Your task to perform on an android device: turn on bluetooth scan Image 0: 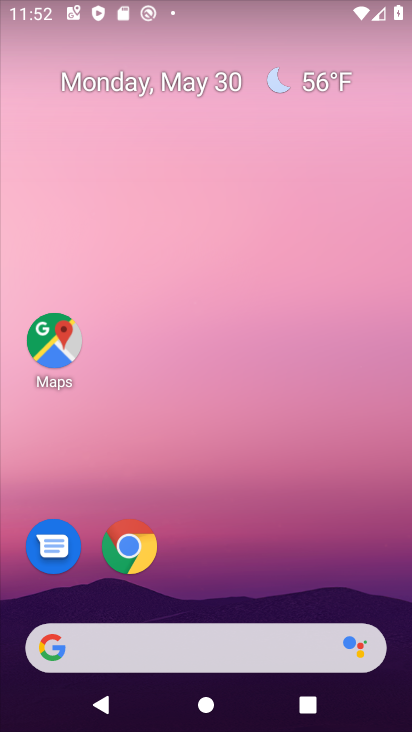
Step 0: drag from (318, 585) to (265, 131)
Your task to perform on an android device: turn on bluetooth scan Image 1: 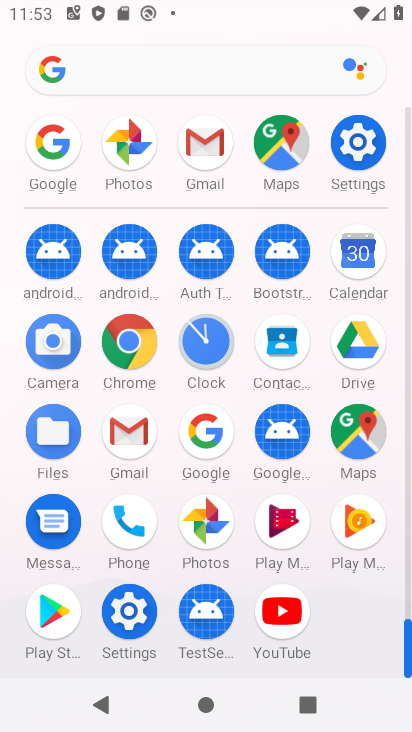
Step 1: click (361, 140)
Your task to perform on an android device: turn on bluetooth scan Image 2: 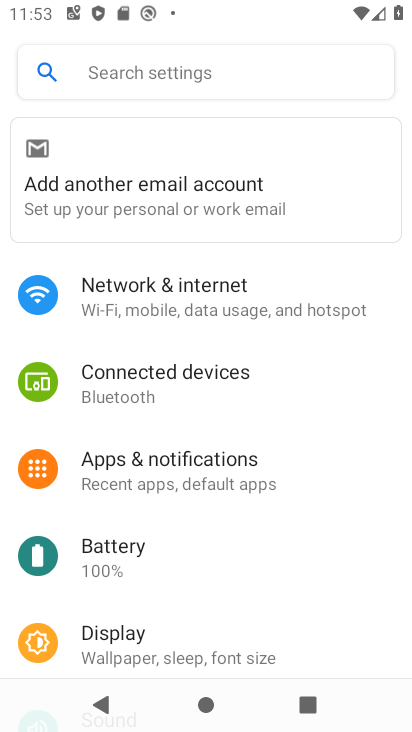
Step 2: drag from (170, 512) to (211, 408)
Your task to perform on an android device: turn on bluetooth scan Image 3: 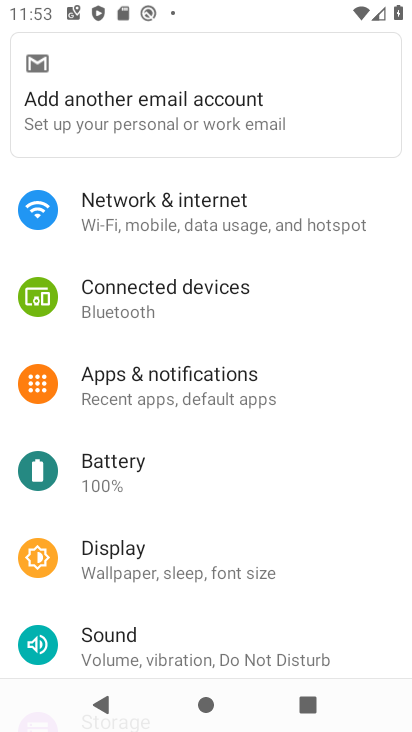
Step 3: drag from (222, 492) to (252, 394)
Your task to perform on an android device: turn on bluetooth scan Image 4: 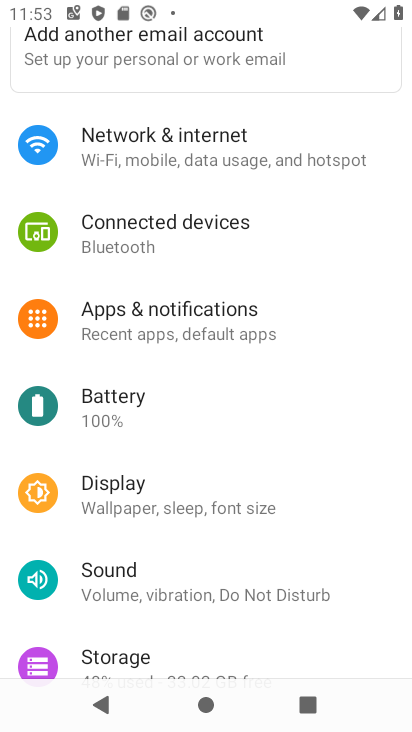
Step 4: drag from (193, 459) to (243, 348)
Your task to perform on an android device: turn on bluetooth scan Image 5: 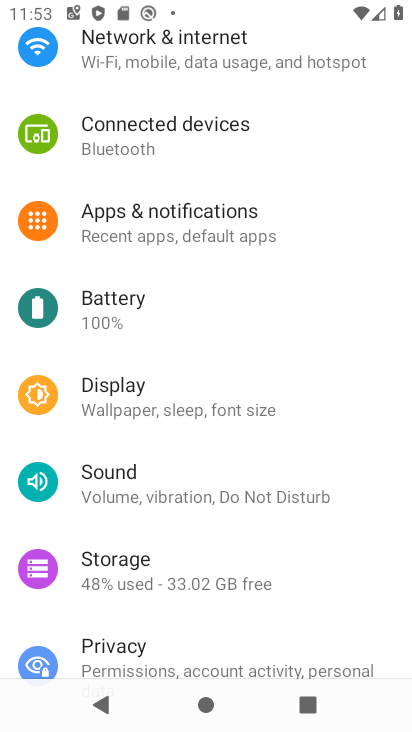
Step 5: drag from (191, 449) to (276, 342)
Your task to perform on an android device: turn on bluetooth scan Image 6: 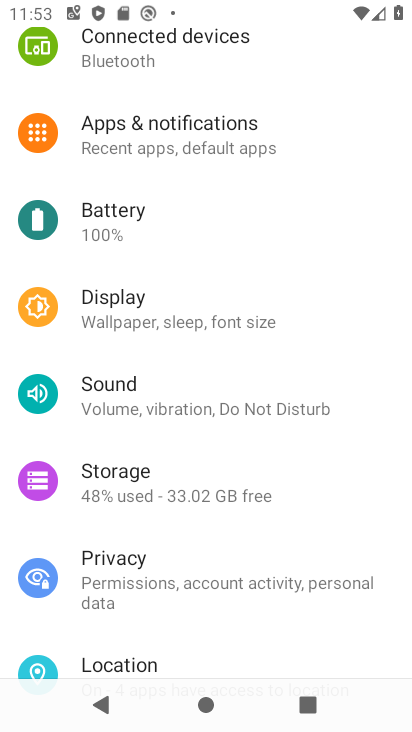
Step 6: drag from (177, 520) to (238, 433)
Your task to perform on an android device: turn on bluetooth scan Image 7: 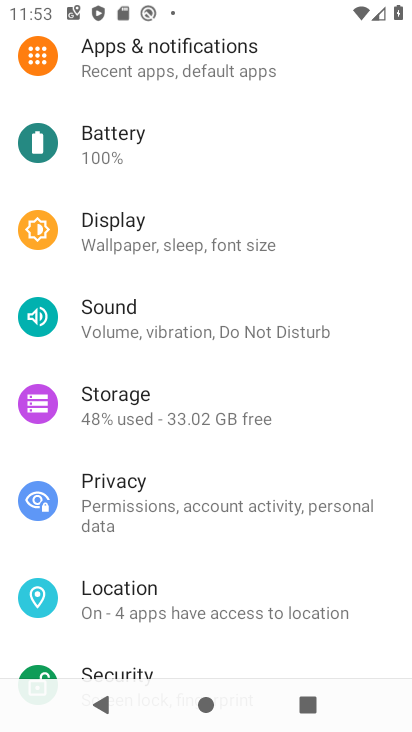
Step 7: drag from (187, 544) to (286, 421)
Your task to perform on an android device: turn on bluetooth scan Image 8: 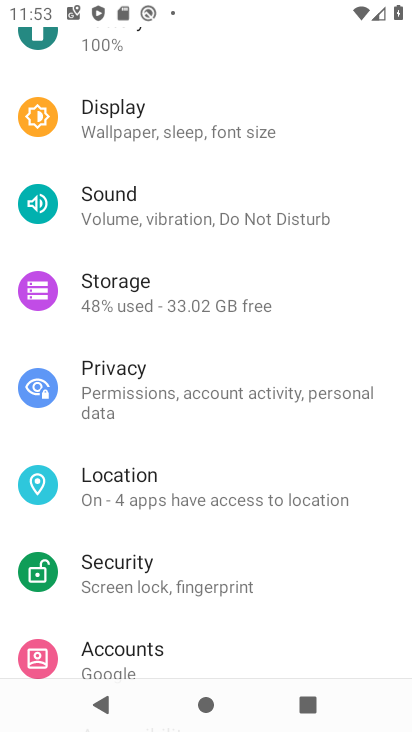
Step 8: click (203, 506)
Your task to perform on an android device: turn on bluetooth scan Image 9: 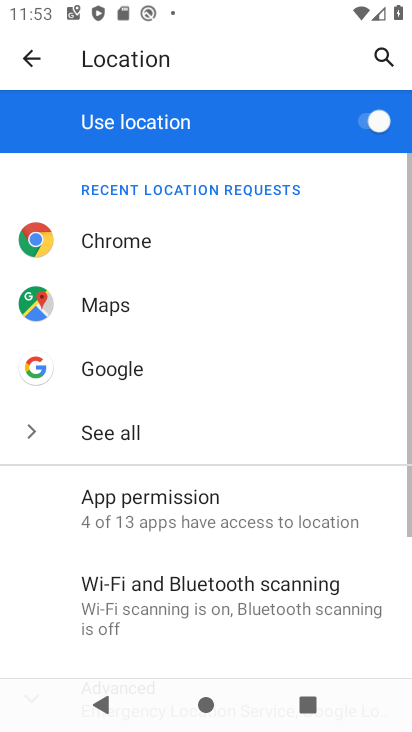
Step 9: click (227, 603)
Your task to perform on an android device: turn on bluetooth scan Image 10: 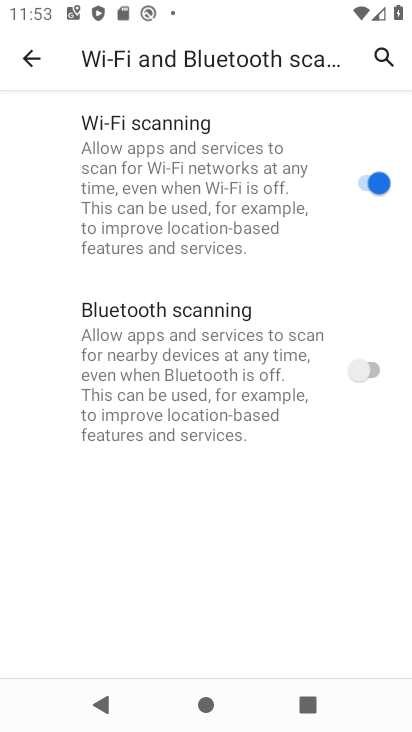
Step 10: click (377, 368)
Your task to perform on an android device: turn on bluetooth scan Image 11: 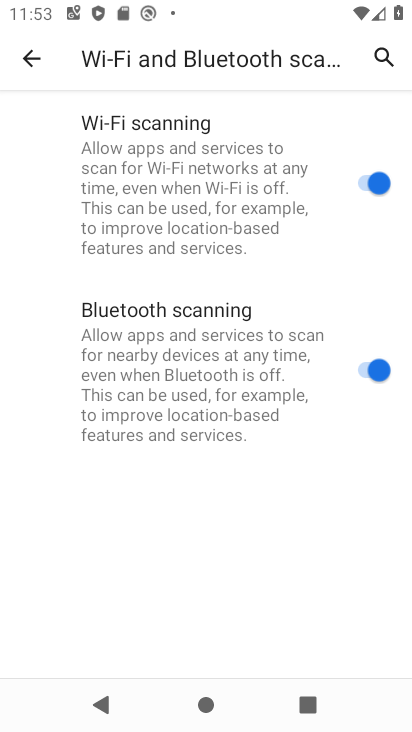
Step 11: task complete